Your task to perform on an android device: Go to Reddit.com Image 0: 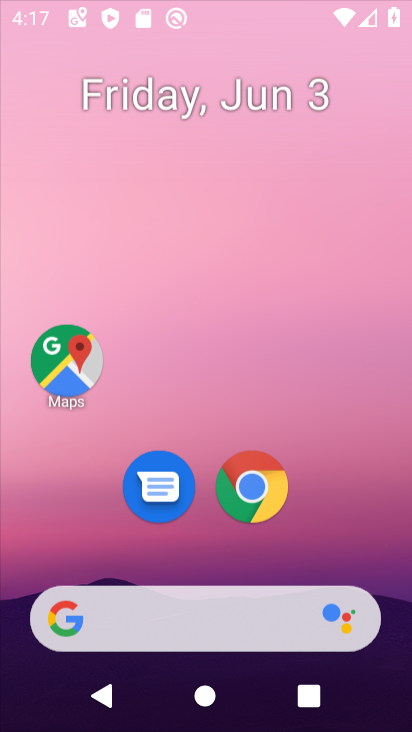
Step 0: click (283, 55)
Your task to perform on an android device: Go to Reddit.com Image 1: 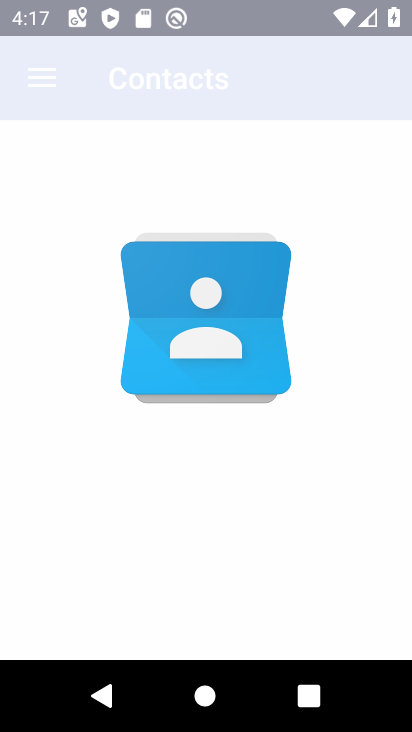
Step 1: drag from (210, 535) to (302, 30)
Your task to perform on an android device: Go to Reddit.com Image 2: 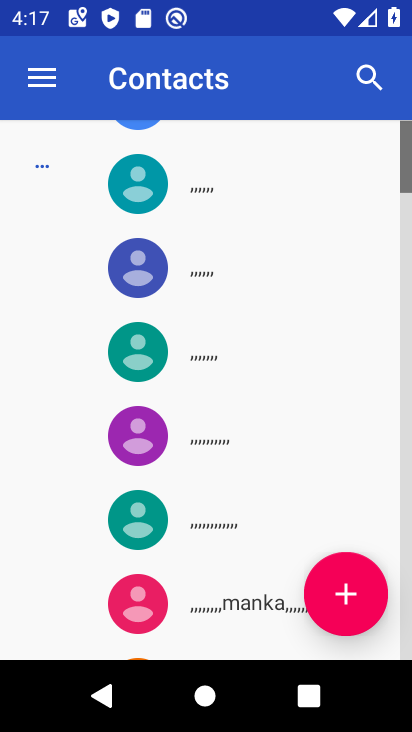
Step 2: press home button
Your task to perform on an android device: Go to Reddit.com Image 3: 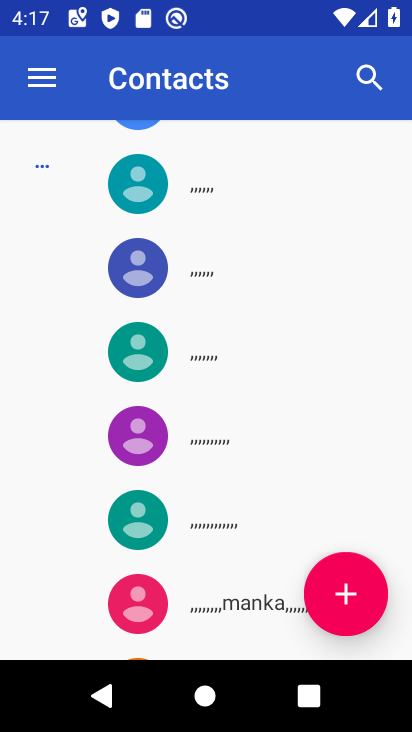
Step 3: click (277, 275)
Your task to perform on an android device: Go to Reddit.com Image 4: 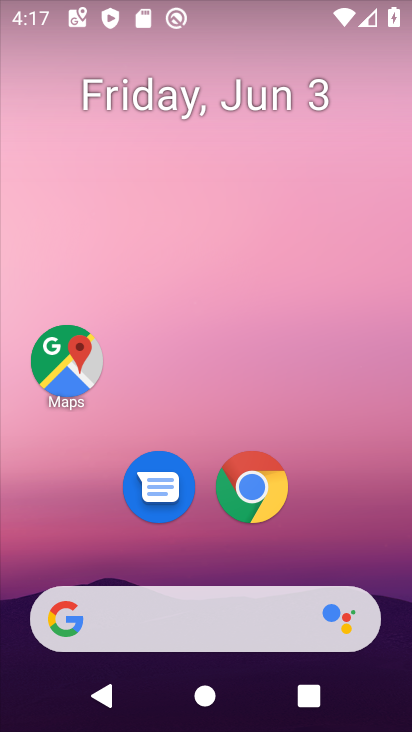
Step 4: drag from (216, 540) to (294, 38)
Your task to perform on an android device: Go to Reddit.com Image 5: 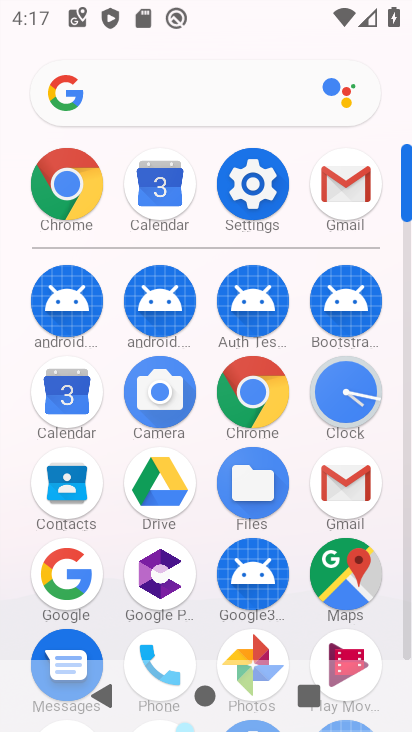
Step 5: drag from (198, 641) to (245, 231)
Your task to perform on an android device: Go to Reddit.com Image 6: 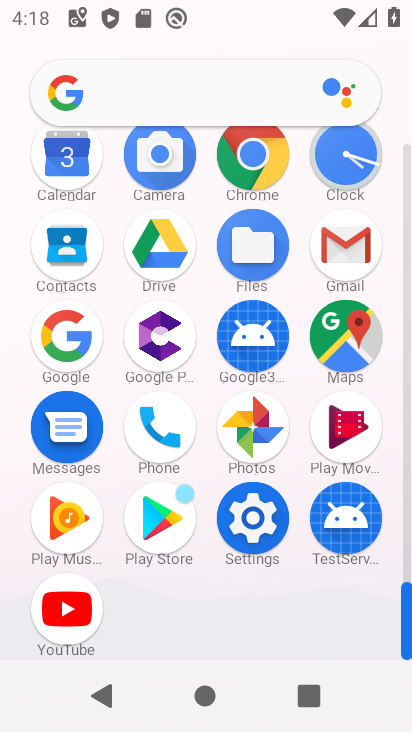
Step 6: drag from (202, 464) to (227, 218)
Your task to perform on an android device: Go to Reddit.com Image 7: 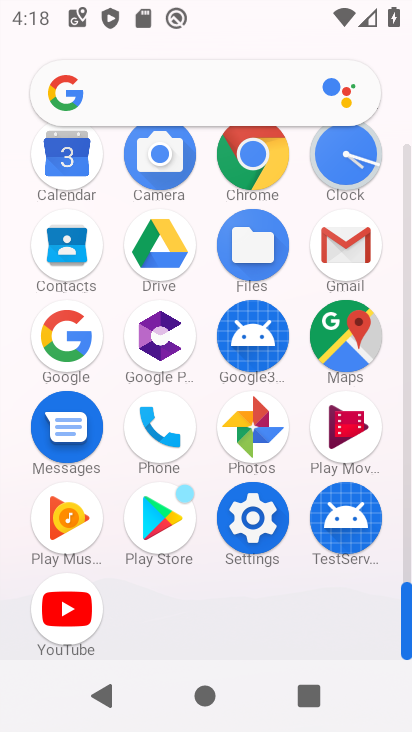
Step 7: click (254, 145)
Your task to perform on an android device: Go to Reddit.com Image 8: 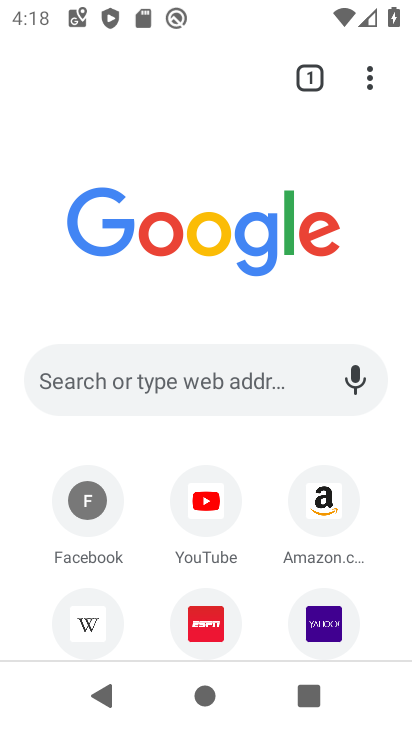
Step 8: click (141, 381)
Your task to perform on an android device: Go to Reddit.com Image 9: 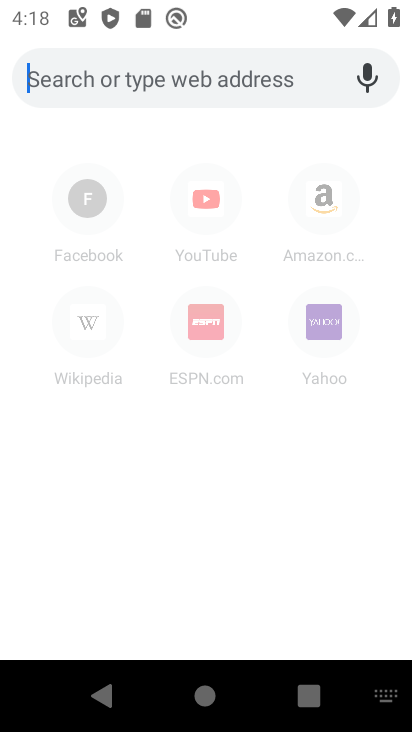
Step 9: click (105, 85)
Your task to perform on an android device: Go to Reddit.com Image 10: 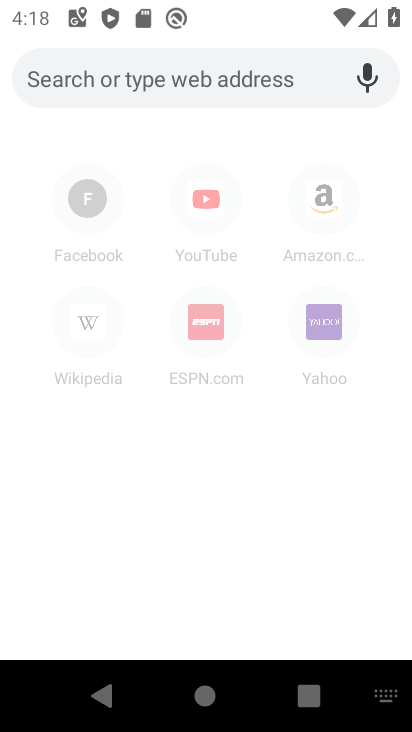
Step 10: type "reddit.com"
Your task to perform on an android device: Go to Reddit.com Image 11: 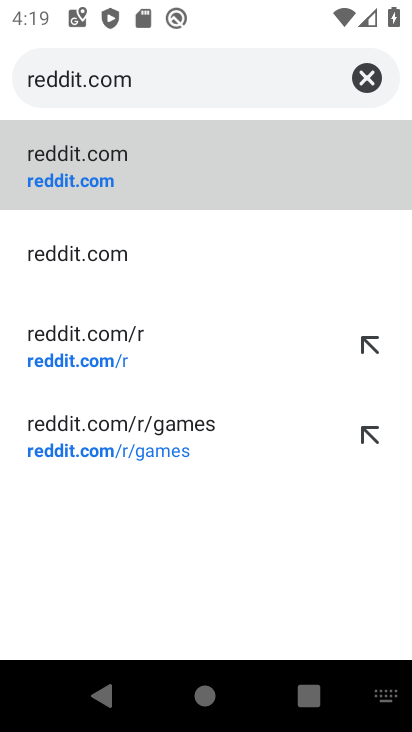
Step 11: click (57, 161)
Your task to perform on an android device: Go to Reddit.com Image 12: 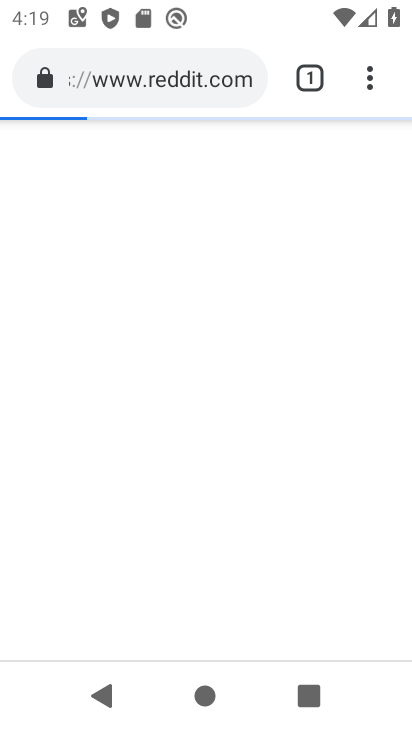
Step 12: task complete